Your task to perform on an android device: open sync settings in chrome Image 0: 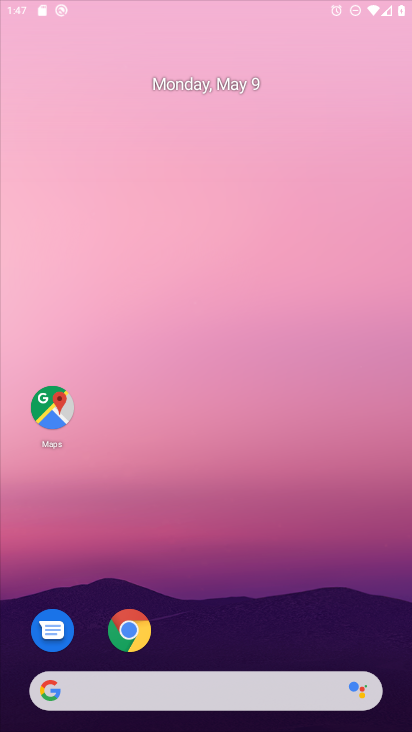
Step 0: click (308, 321)
Your task to perform on an android device: open sync settings in chrome Image 1: 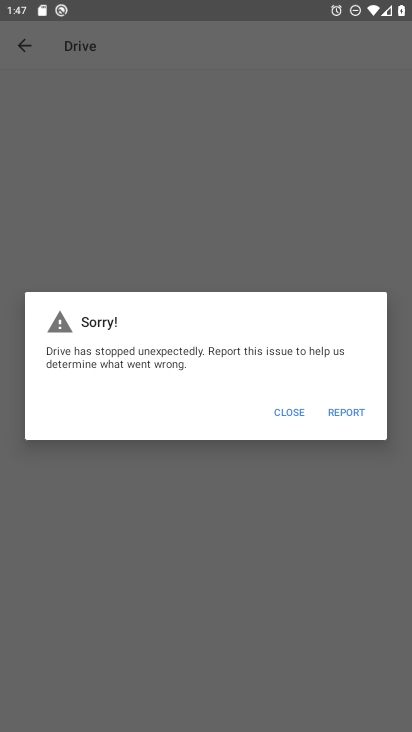
Step 1: press home button
Your task to perform on an android device: open sync settings in chrome Image 2: 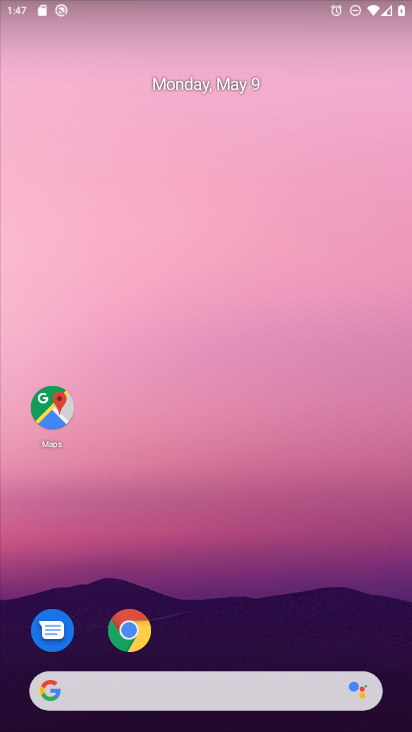
Step 2: drag from (254, 709) to (296, 125)
Your task to perform on an android device: open sync settings in chrome Image 3: 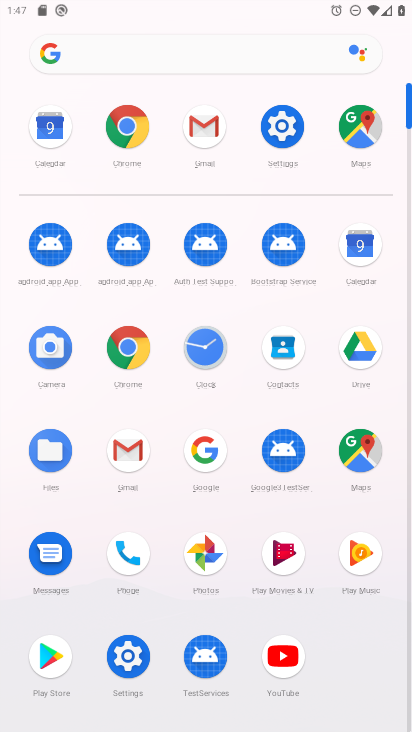
Step 3: click (143, 129)
Your task to perform on an android device: open sync settings in chrome Image 4: 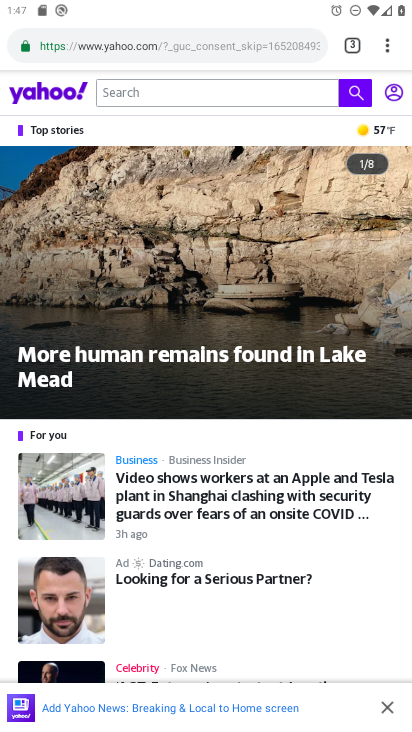
Step 4: click (385, 53)
Your task to perform on an android device: open sync settings in chrome Image 5: 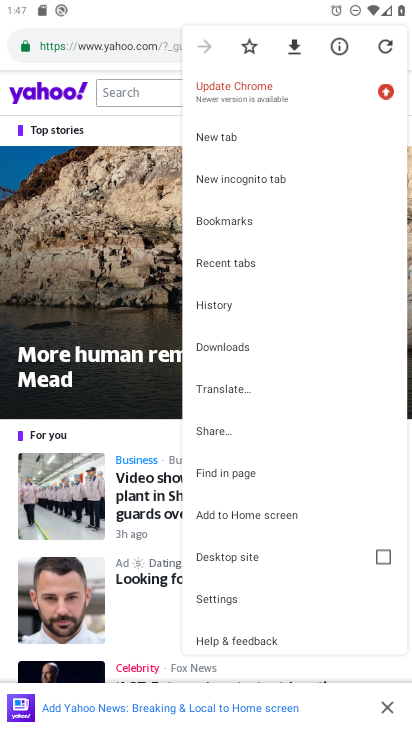
Step 5: click (211, 598)
Your task to perform on an android device: open sync settings in chrome Image 6: 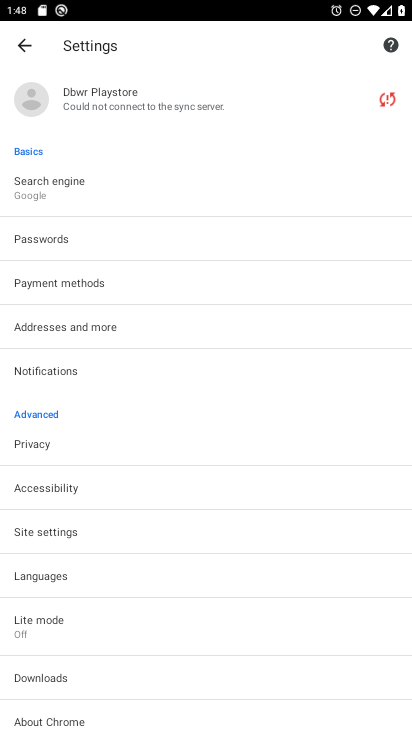
Step 6: click (45, 532)
Your task to perform on an android device: open sync settings in chrome Image 7: 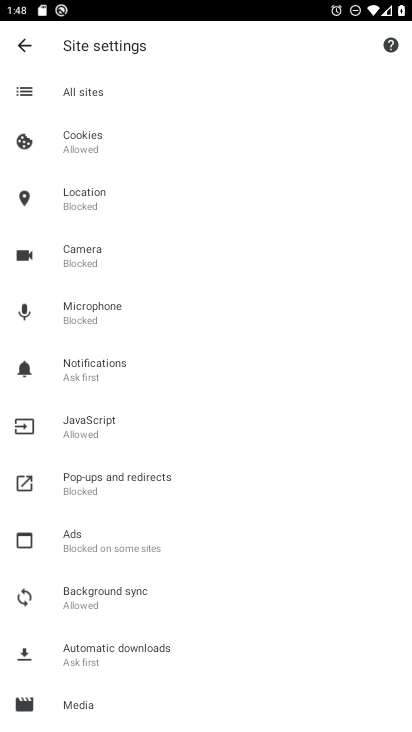
Step 7: click (89, 588)
Your task to perform on an android device: open sync settings in chrome Image 8: 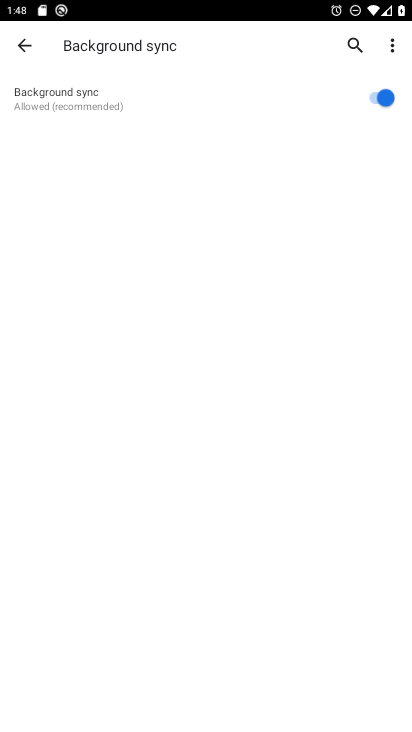
Step 8: click (281, 98)
Your task to perform on an android device: open sync settings in chrome Image 9: 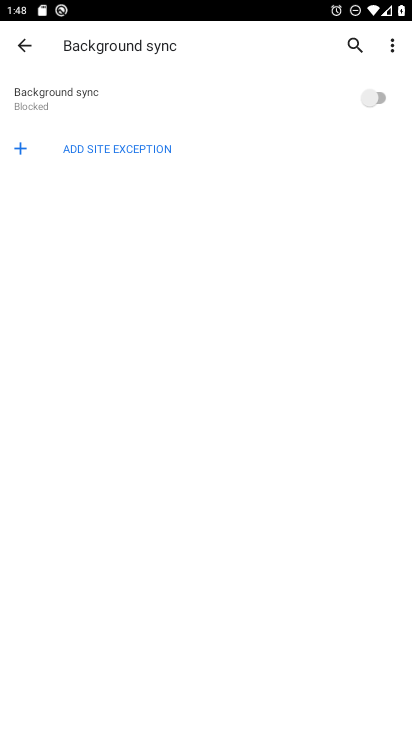
Step 9: click (285, 94)
Your task to perform on an android device: open sync settings in chrome Image 10: 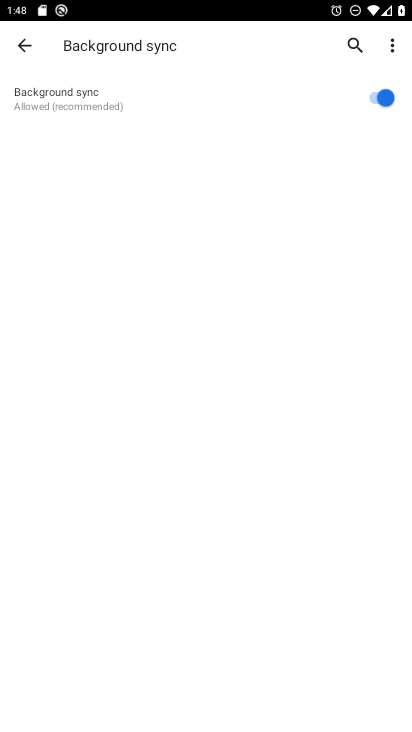
Step 10: task complete